Your task to perform on an android device: turn on data saver in the chrome app Image 0: 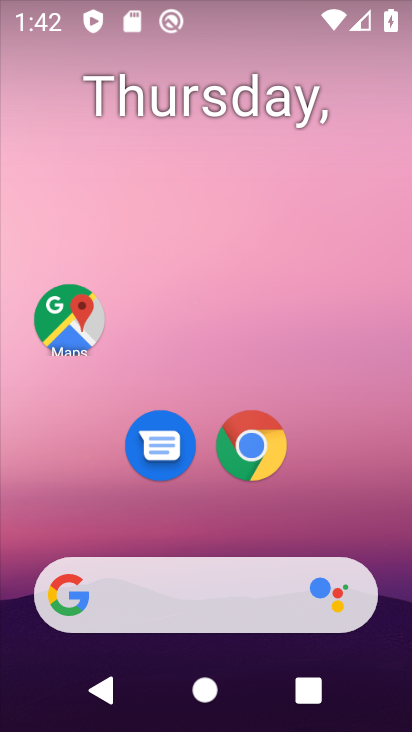
Step 0: click (267, 441)
Your task to perform on an android device: turn on data saver in the chrome app Image 1: 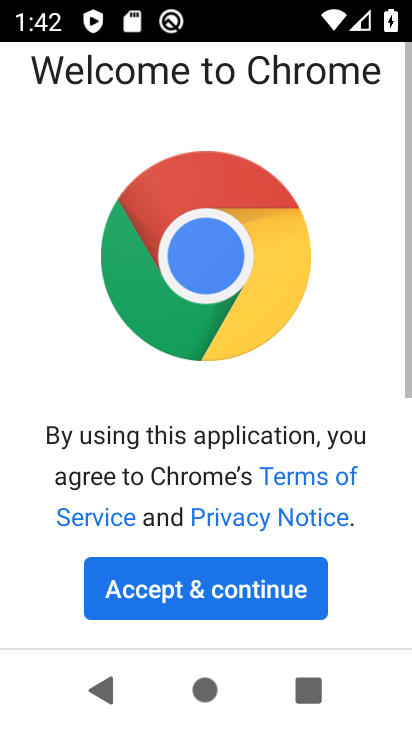
Step 1: click (225, 578)
Your task to perform on an android device: turn on data saver in the chrome app Image 2: 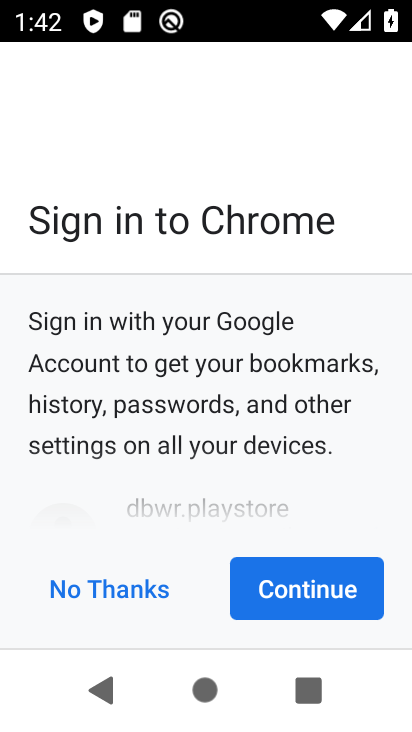
Step 2: click (286, 594)
Your task to perform on an android device: turn on data saver in the chrome app Image 3: 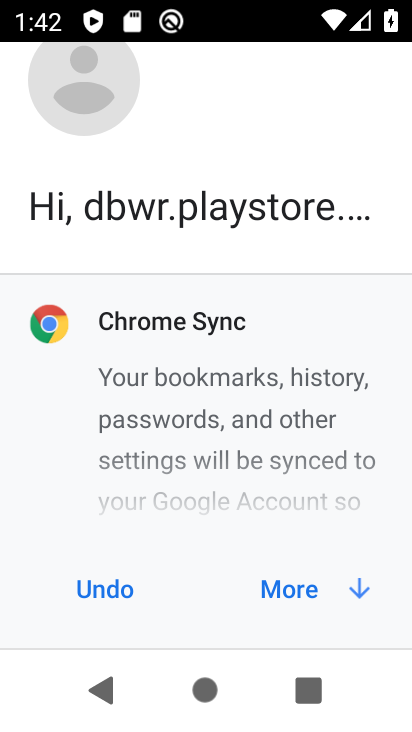
Step 3: click (294, 601)
Your task to perform on an android device: turn on data saver in the chrome app Image 4: 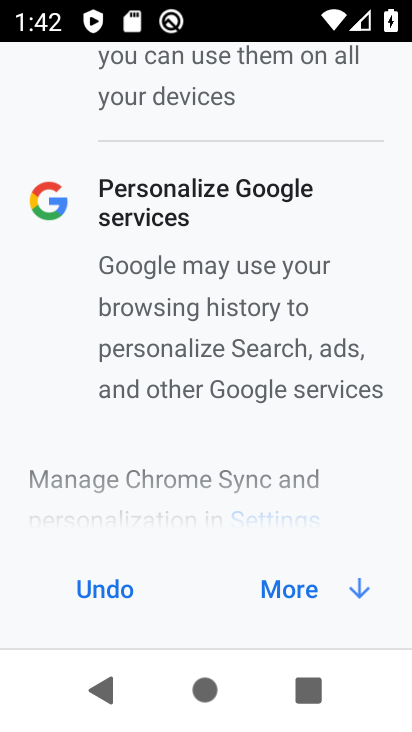
Step 4: click (257, 574)
Your task to perform on an android device: turn on data saver in the chrome app Image 5: 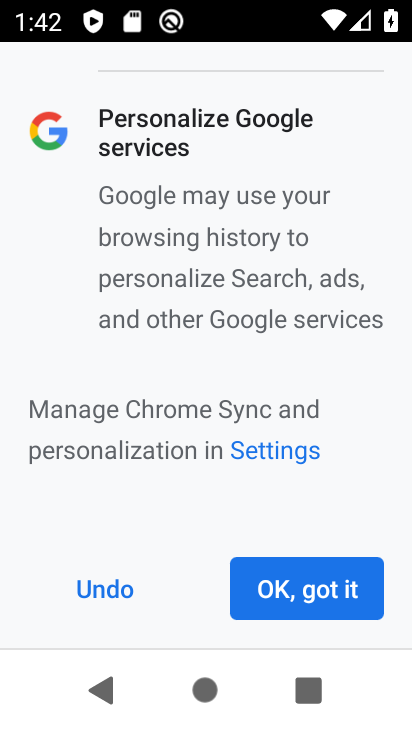
Step 5: click (257, 574)
Your task to perform on an android device: turn on data saver in the chrome app Image 6: 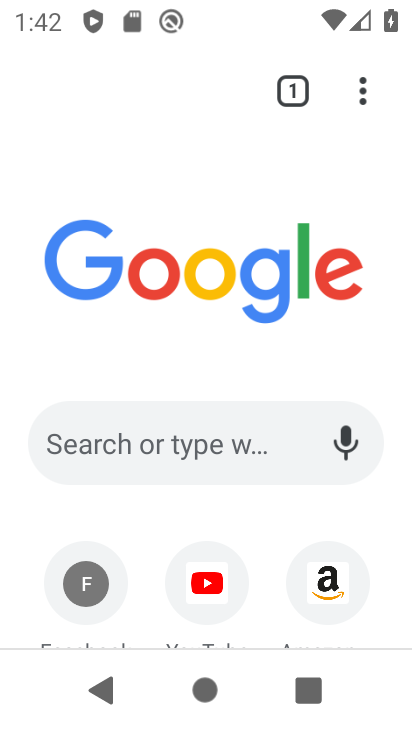
Step 6: click (366, 107)
Your task to perform on an android device: turn on data saver in the chrome app Image 7: 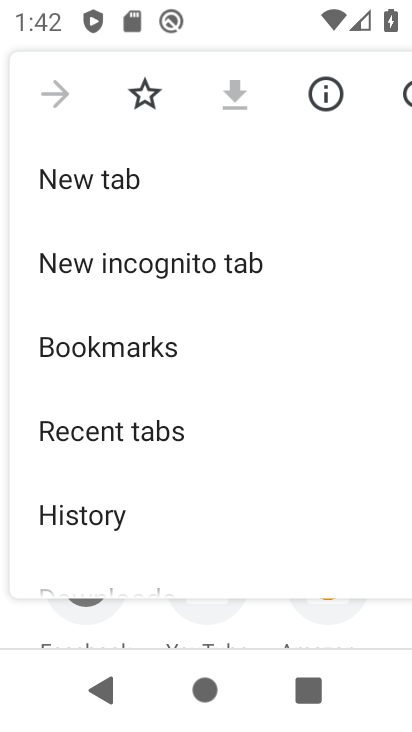
Step 7: drag from (242, 431) to (255, 223)
Your task to perform on an android device: turn on data saver in the chrome app Image 8: 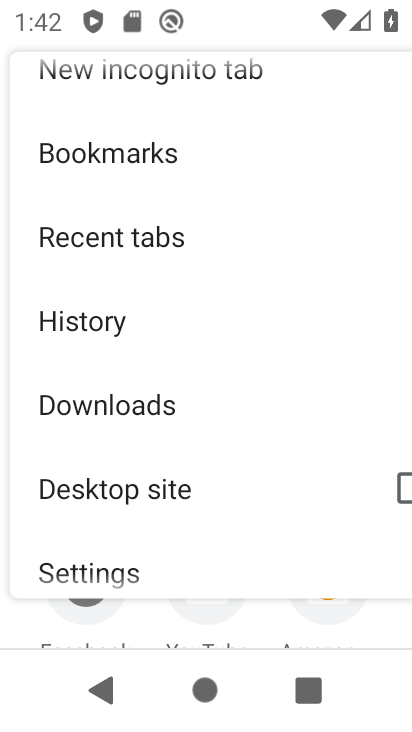
Step 8: drag from (234, 408) to (240, 298)
Your task to perform on an android device: turn on data saver in the chrome app Image 9: 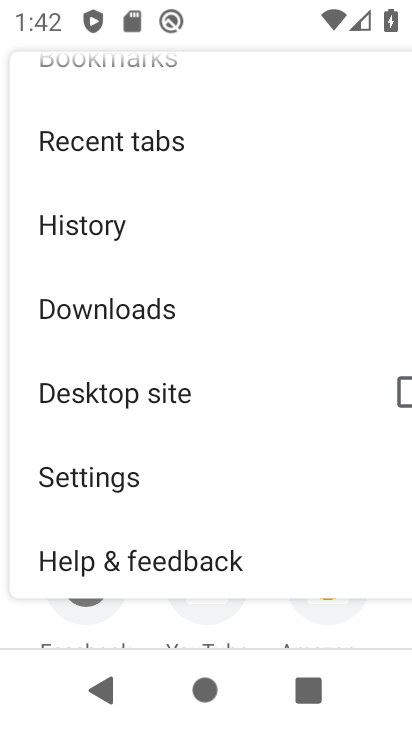
Step 9: drag from (202, 467) to (236, 201)
Your task to perform on an android device: turn on data saver in the chrome app Image 10: 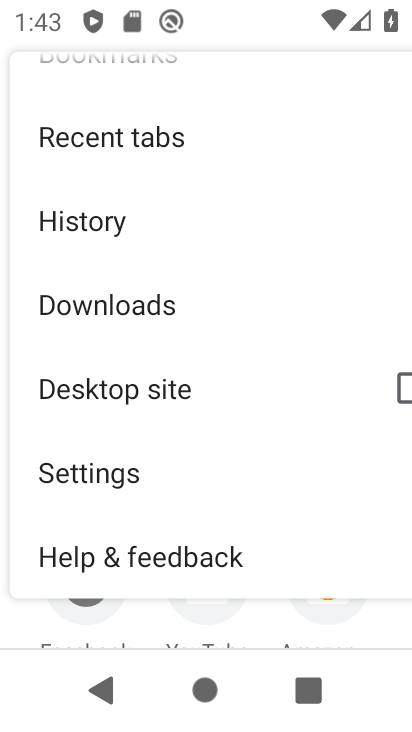
Step 10: drag from (165, 515) to (197, 255)
Your task to perform on an android device: turn on data saver in the chrome app Image 11: 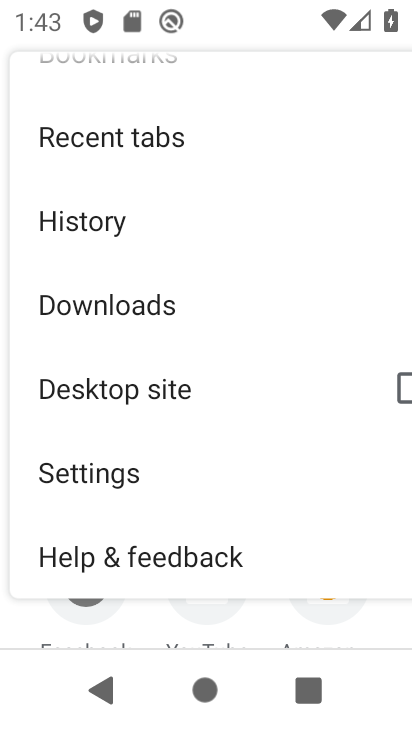
Step 11: drag from (220, 242) to (213, 454)
Your task to perform on an android device: turn on data saver in the chrome app Image 12: 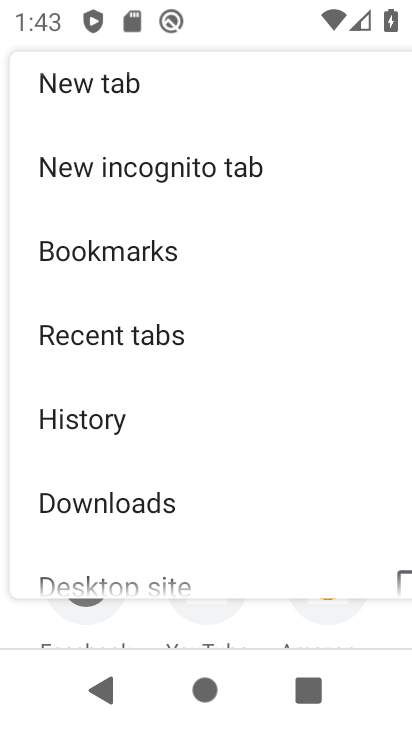
Step 12: drag from (225, 246) to (241, 444)
Your task to perform on an android device: turn on data saver in the chrome app Image 13: 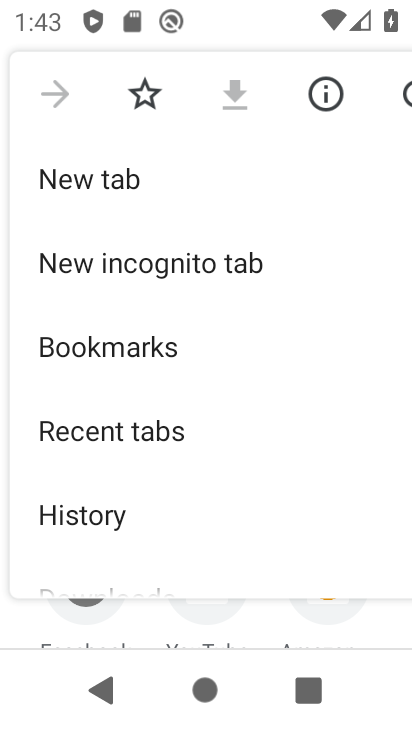
Step 13: drag from (234, 462) to (268, 281)
Your task to perform on an android device: turn on data saver in the chrome app Image 14: 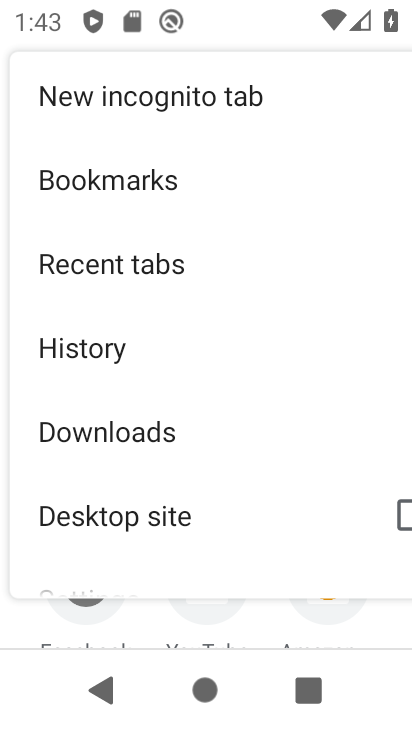
Step 14: drag from (235, 427) to (257, 253)
Your task to perform on an android device: turn on data saver in the chrome app Image 15: 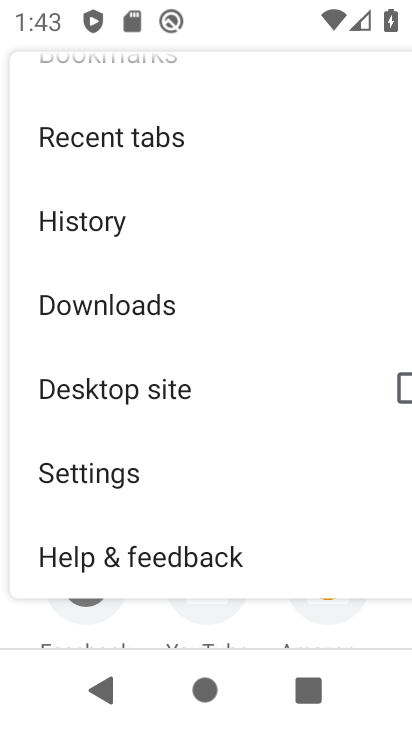
Step 15: click (183, 459)
Your task to perform on an android device: turn on data saver in the chrome app Image 16: 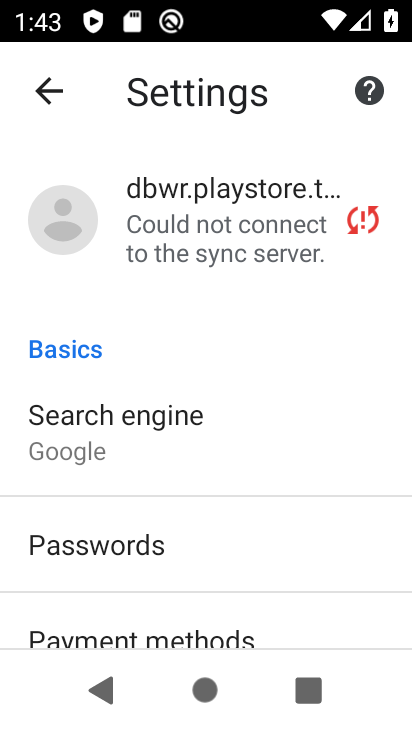
Step 16: drag from (213, 573) to (225, 293)
Your task to perform on an android device: turn on data saver in the chrome app Image 17: 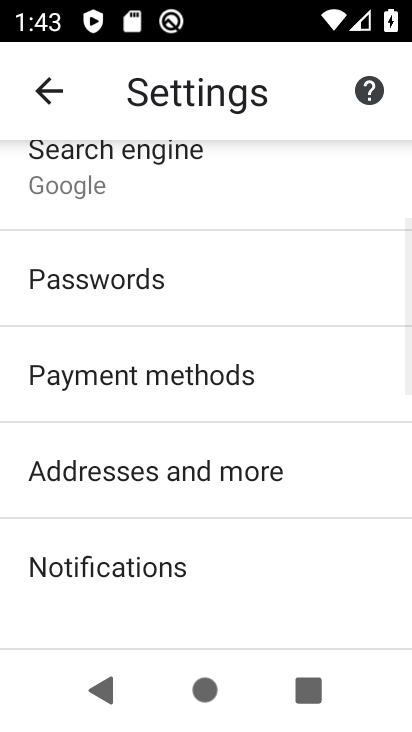
Step 17: drag from (209, 532) to (213, 272)
Your task to perform on an android device: turn on data saver in the chrome app Image 18: 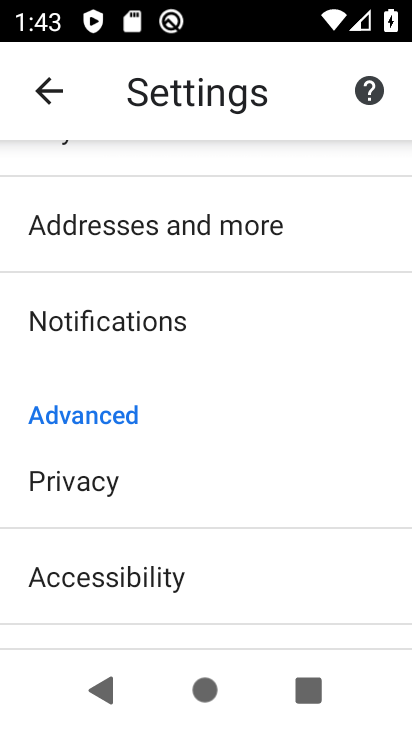
Step 18: drag from (180, 520) to (222, 254)
Your task to perform on an android device: turn on data saver in the chrome app Image 19: 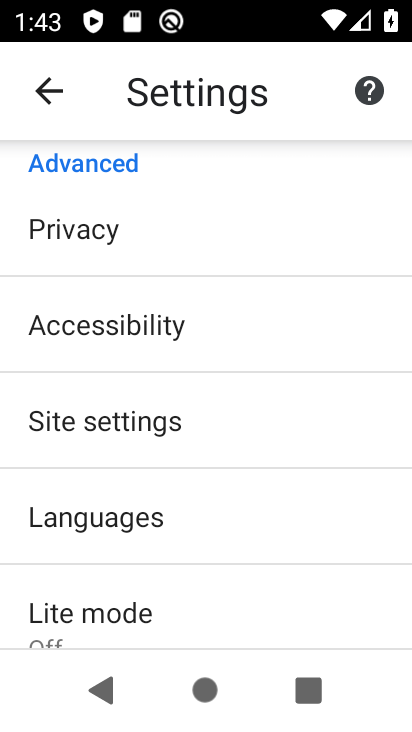
Step 19: drag from (205, 555) to (242, 431)
Your task to perform on an android device: turn on data saver in the chrome app Image 20: 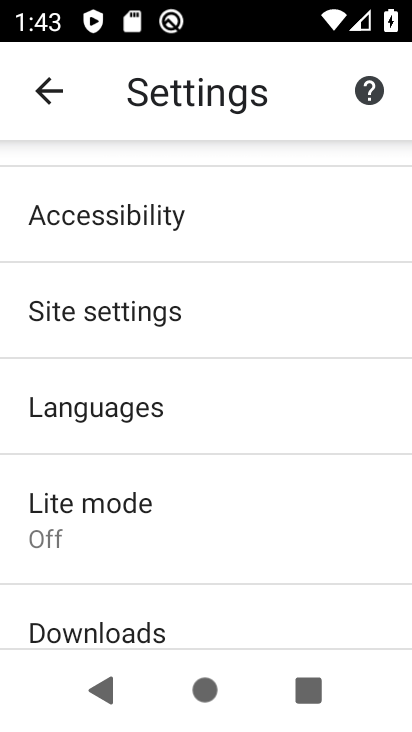
Step 20: click (183, 505)
Your task to perform on an android device: turn on data saver in the chrome app Image 21: 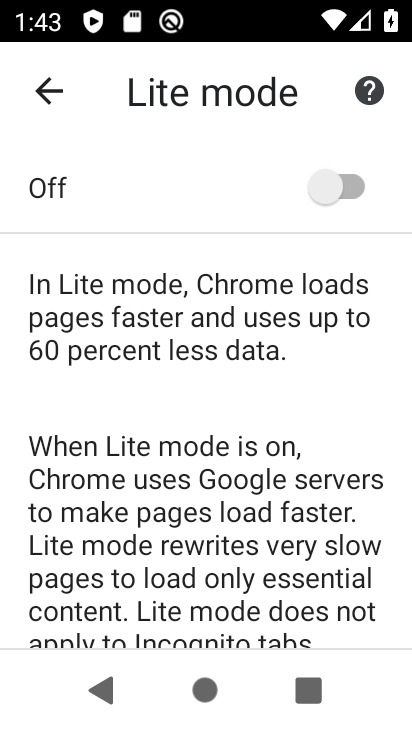
Step 21: click (352, 179)
Your task to perform on an android device: turn on data saver in the chrome app Image 22: 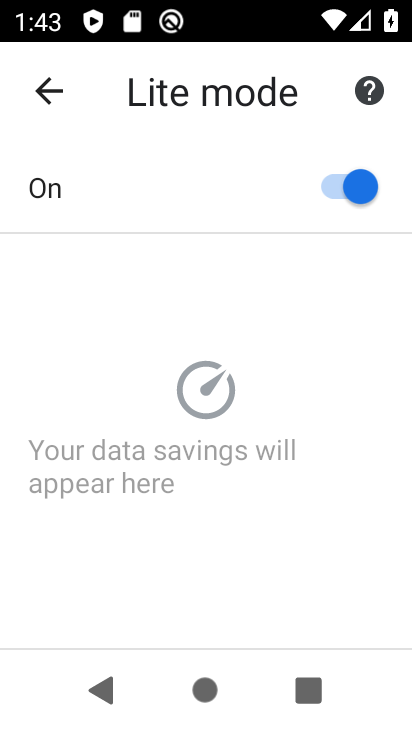
Step 22: task complete